Your task to perform on an android device: open chrome and create a bookmark for the current page Image 0: 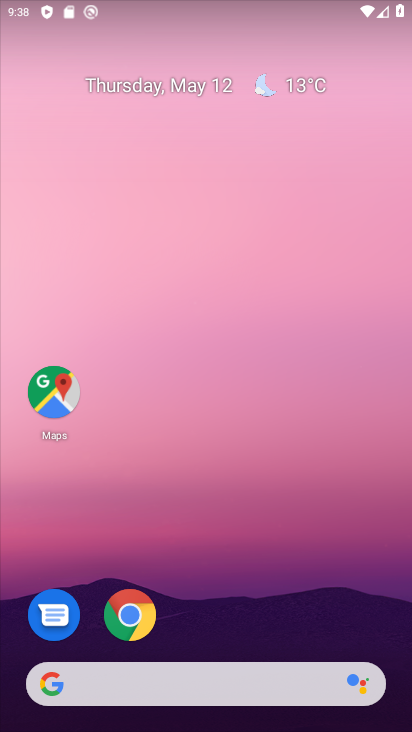
Step 0: drag from (340, 561) to (406, 36)
Your task to perform on an android device: open chrome and create a bookmark for the current page Image 1: 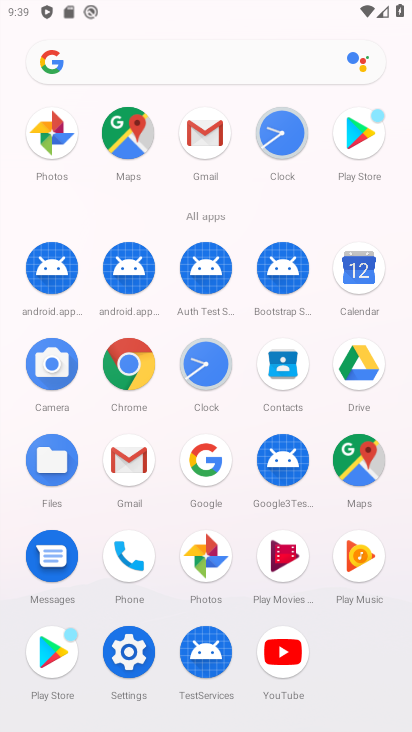
Step 1: click (111, 368)
Your task to perform on an android device: open chrome and create a bookmark for the current page Image 2: 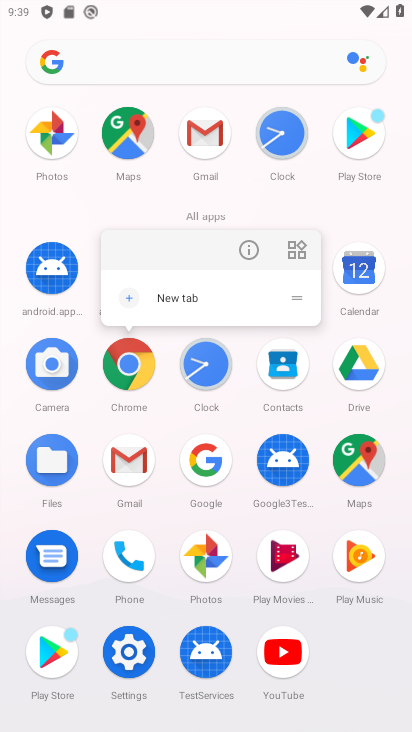
Step 2: click (128, 366)
Your task to perform on an android device: open chrome and create a bookmark for the current page Image 3: 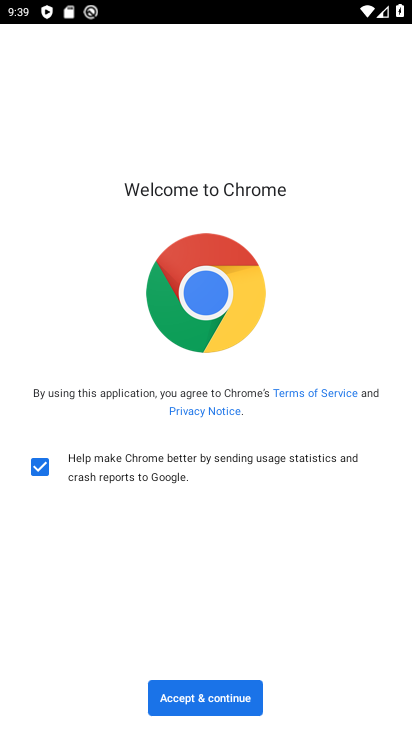
Step 3: click (221, 701)
Your task to perform on an android device: open chrome and create a bookmark for the current page Image 4: 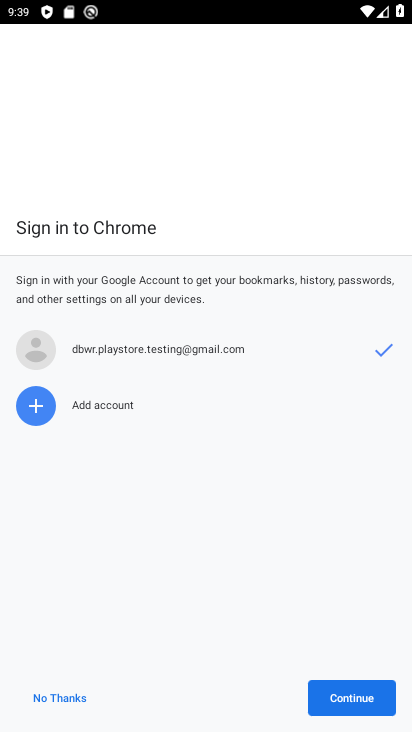
Step 4: click (75, 697)
Your task to perform on an android device: open chrome and create a bookmark for the current page Image 5: 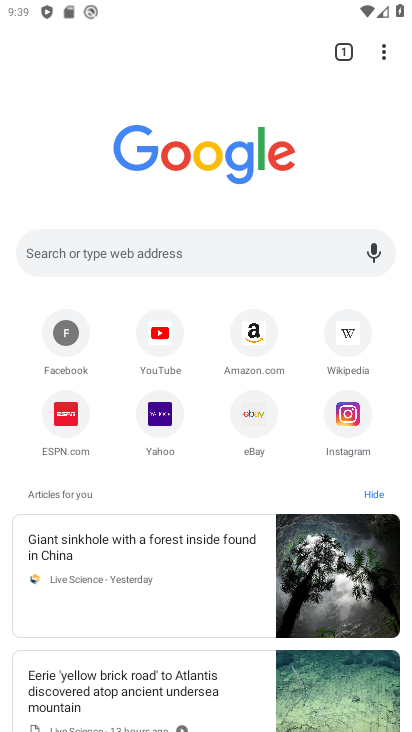
Step 5: task complete